Your task to perform on an android device: change the upload size in google photos Image 0: 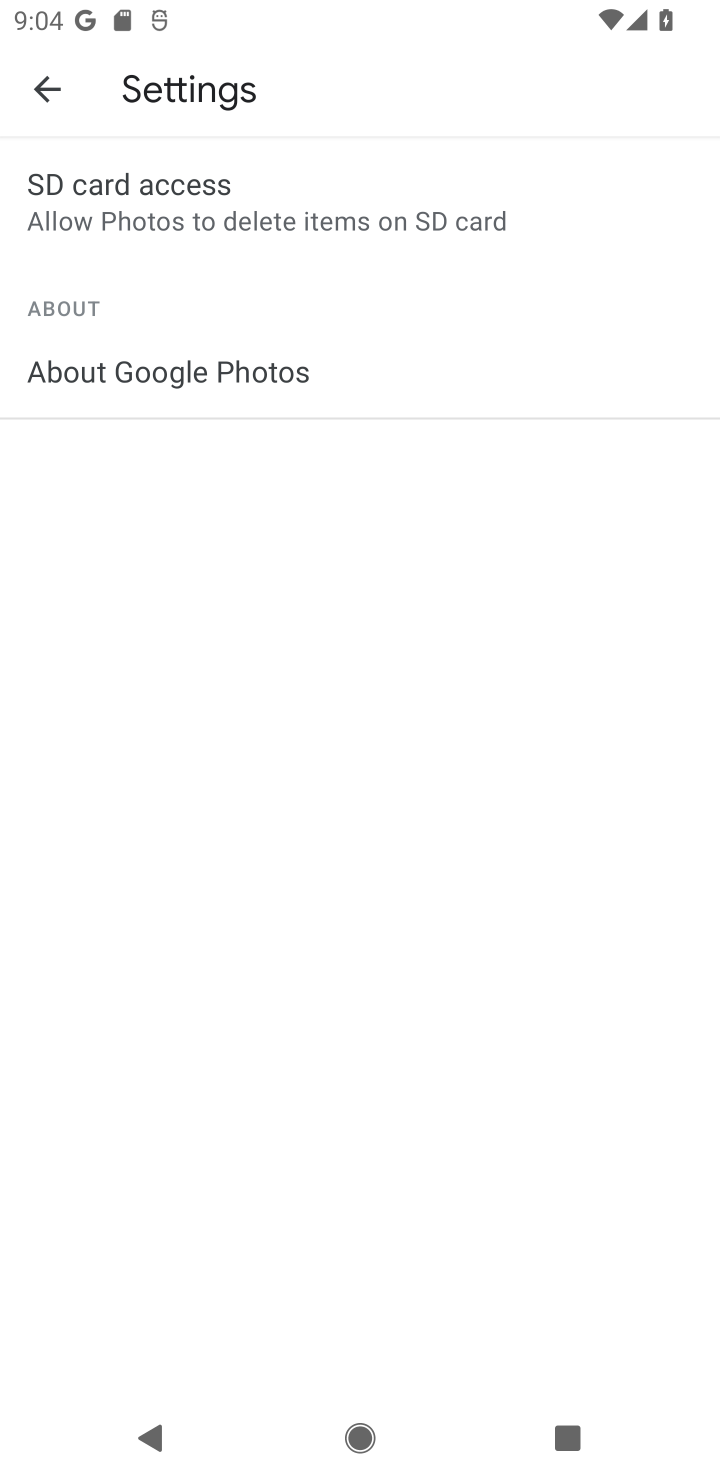
Step 0: press home button
Your task to perform on an android device: change the upload size in google photos Image 1: 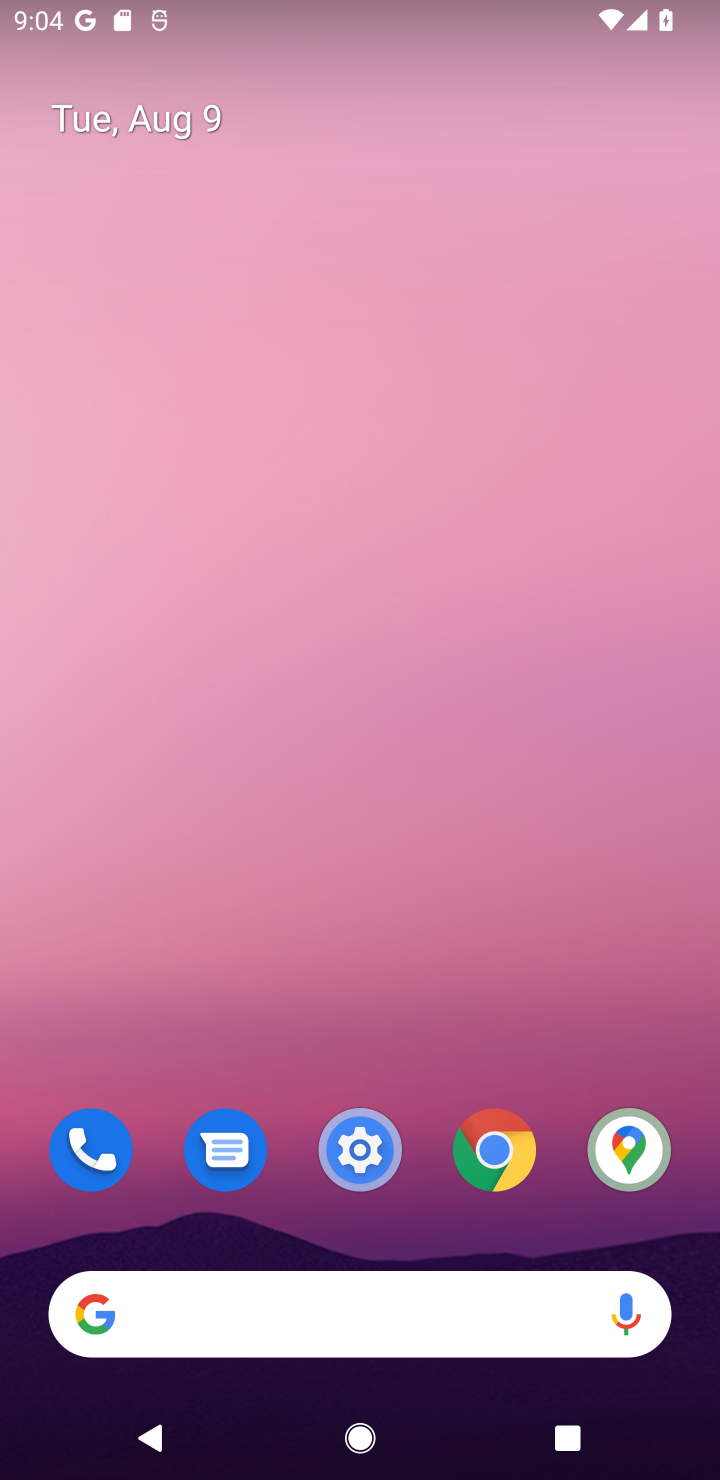
Step 1: drag from (525, 409) to (601, 20)
Your task to perform on an android device: change the upload size in google photos Image 2: 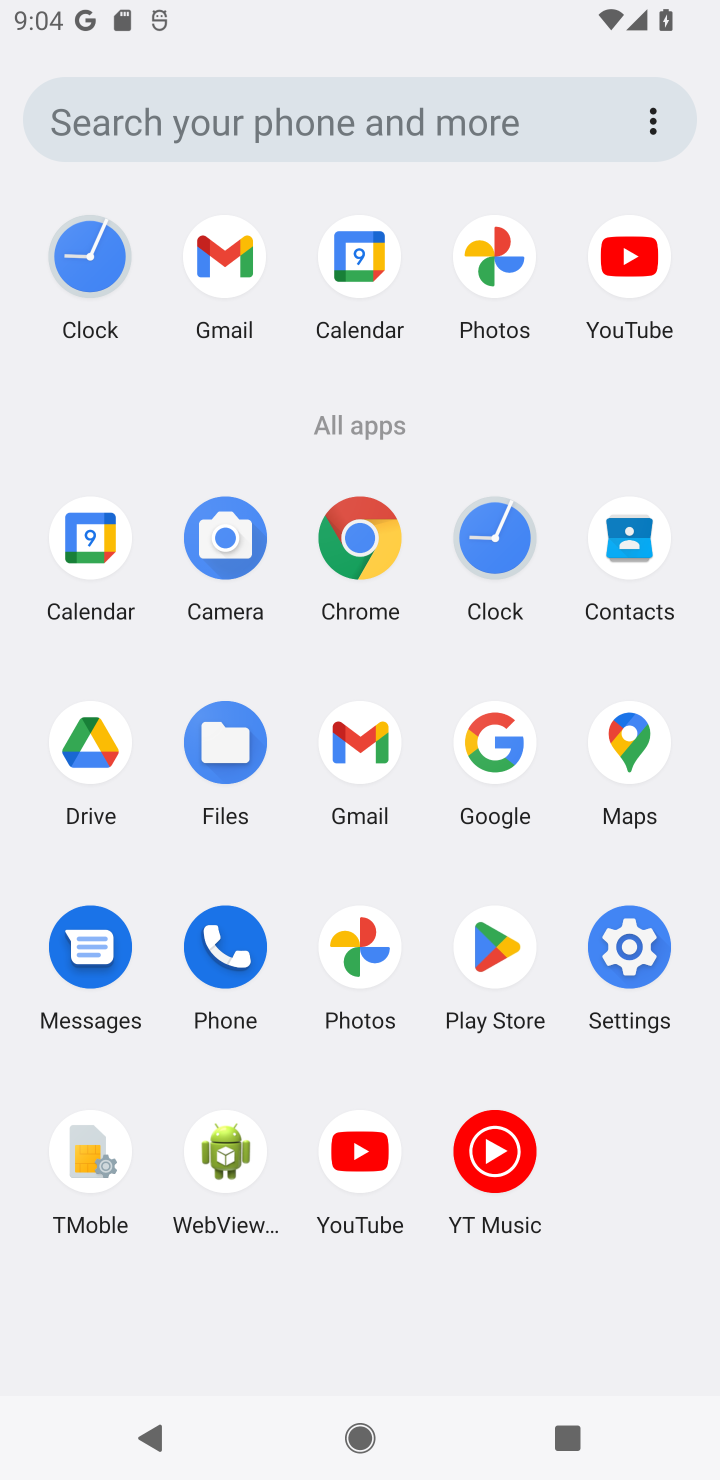
Step 2: click (327, 989)
Your task to perform on an android device: change the upload size in google photos Image 3: 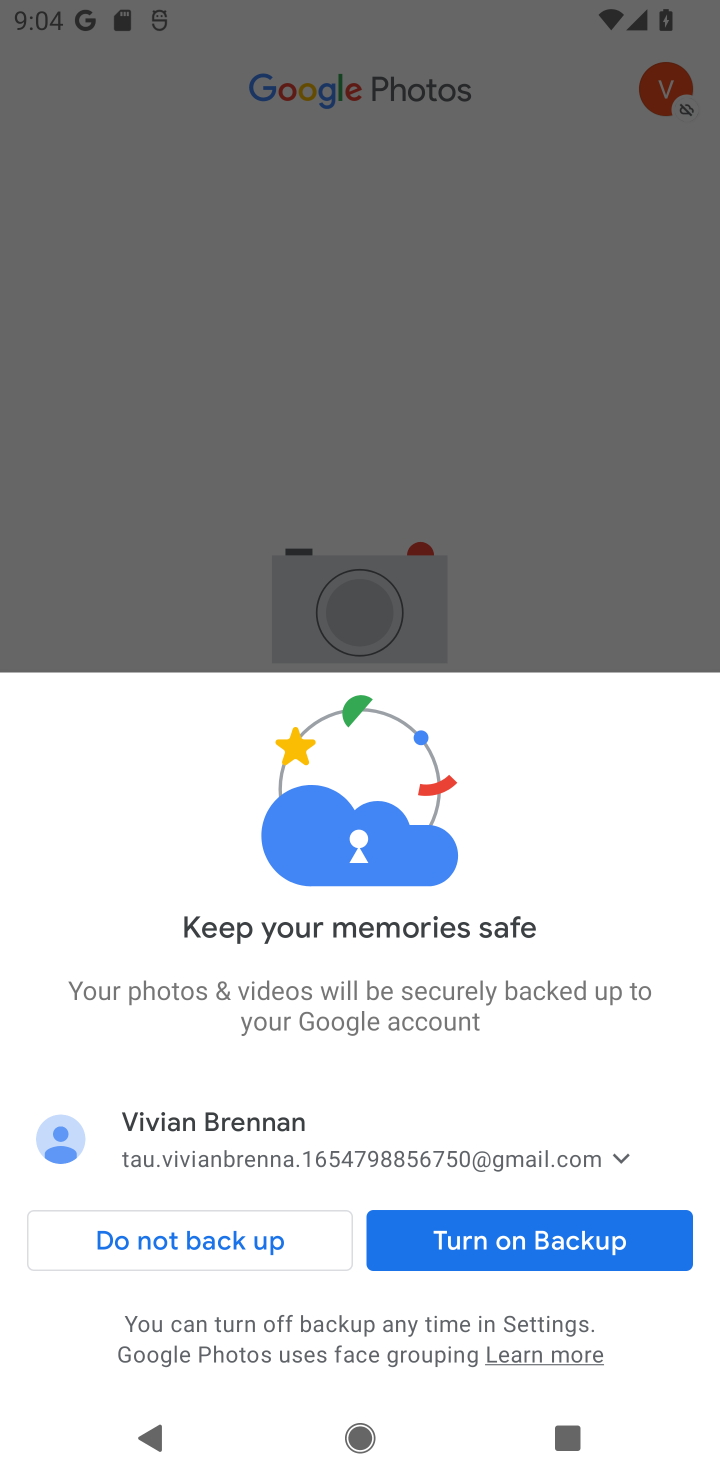
Step 3: click (525, 1244)
Your task to perform on an android device: change the upload size in google photos Image 4: 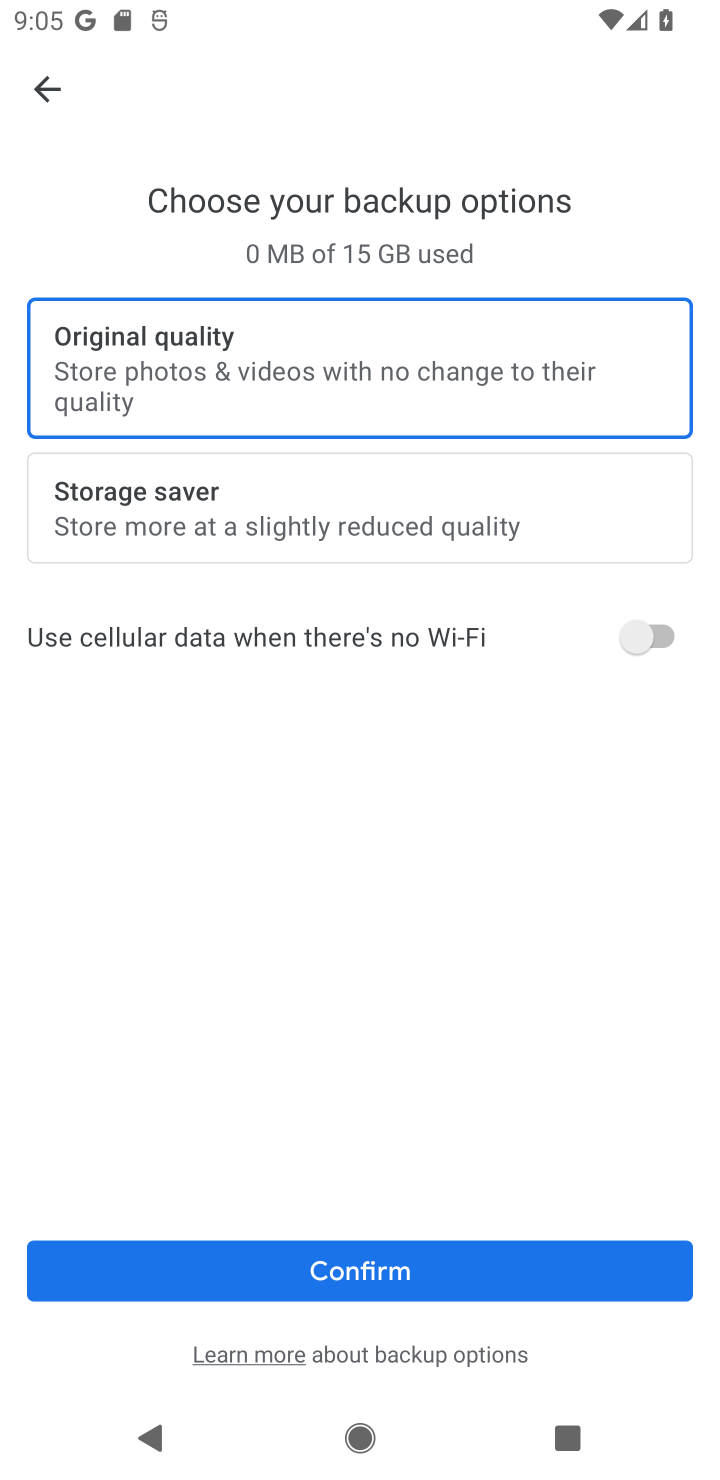
Step 4: click (349, 1262)
Your task to perform on an android device: change the upload size in google photos Image 5: 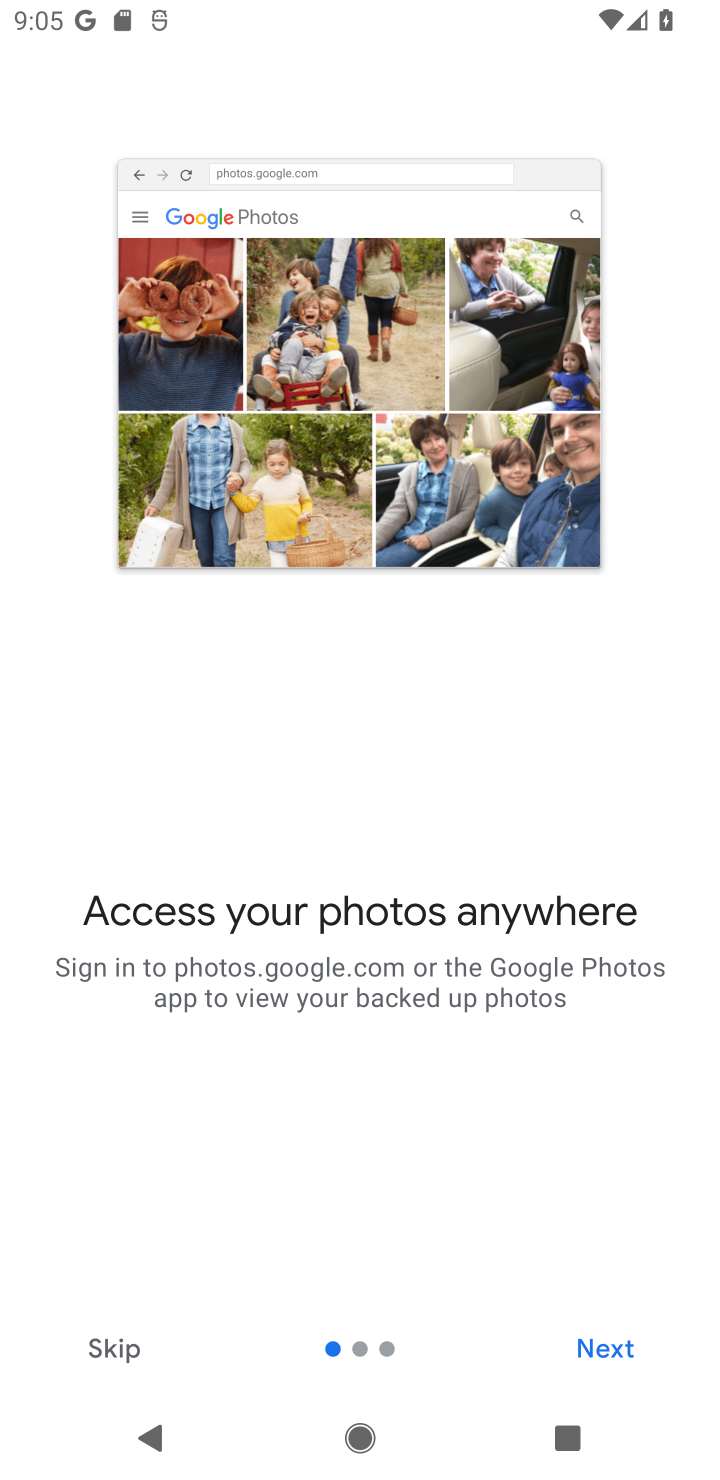
Step 5: click (614, 1350)
Your task to perform on an android device: change the upload size in google photos Image 6: 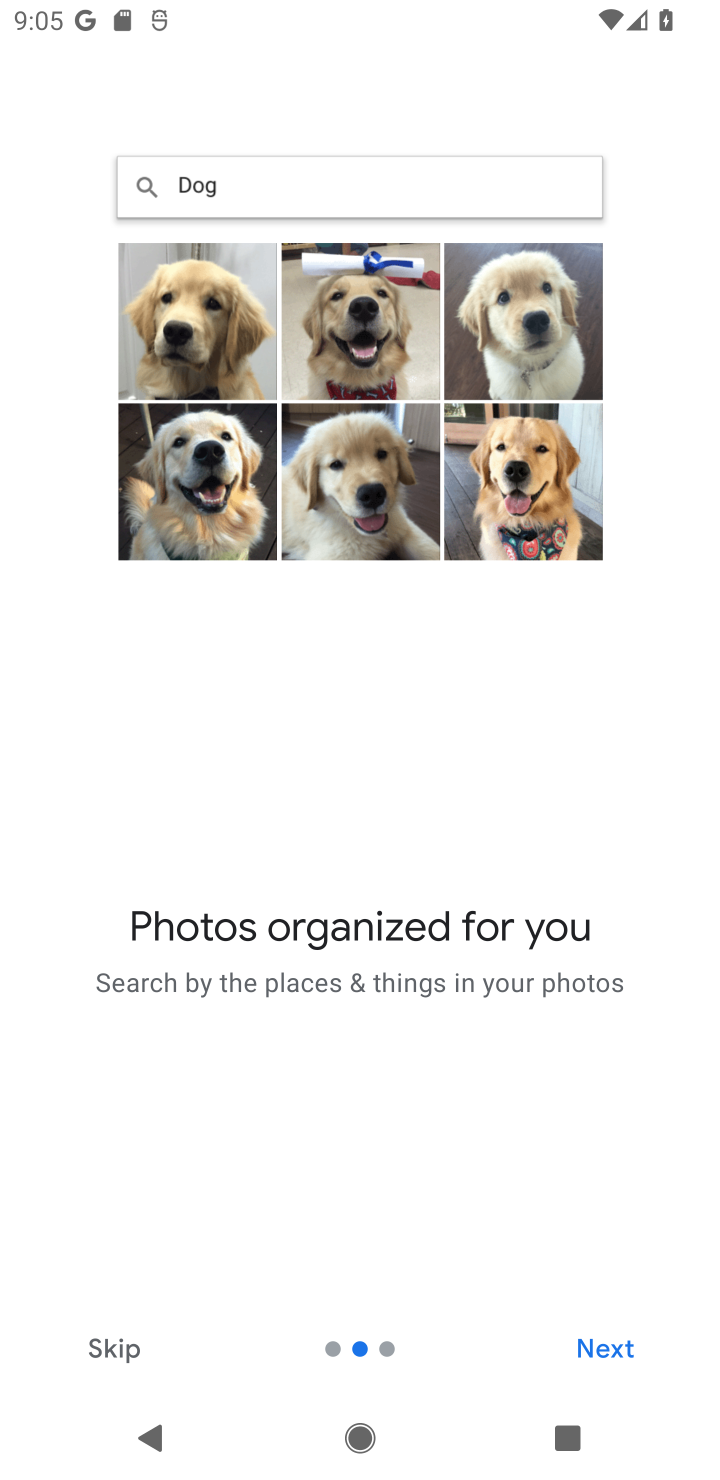
Step 6: click (623, 1352)
Your task to perform on an android device: change the upload size in google photos Image 7: 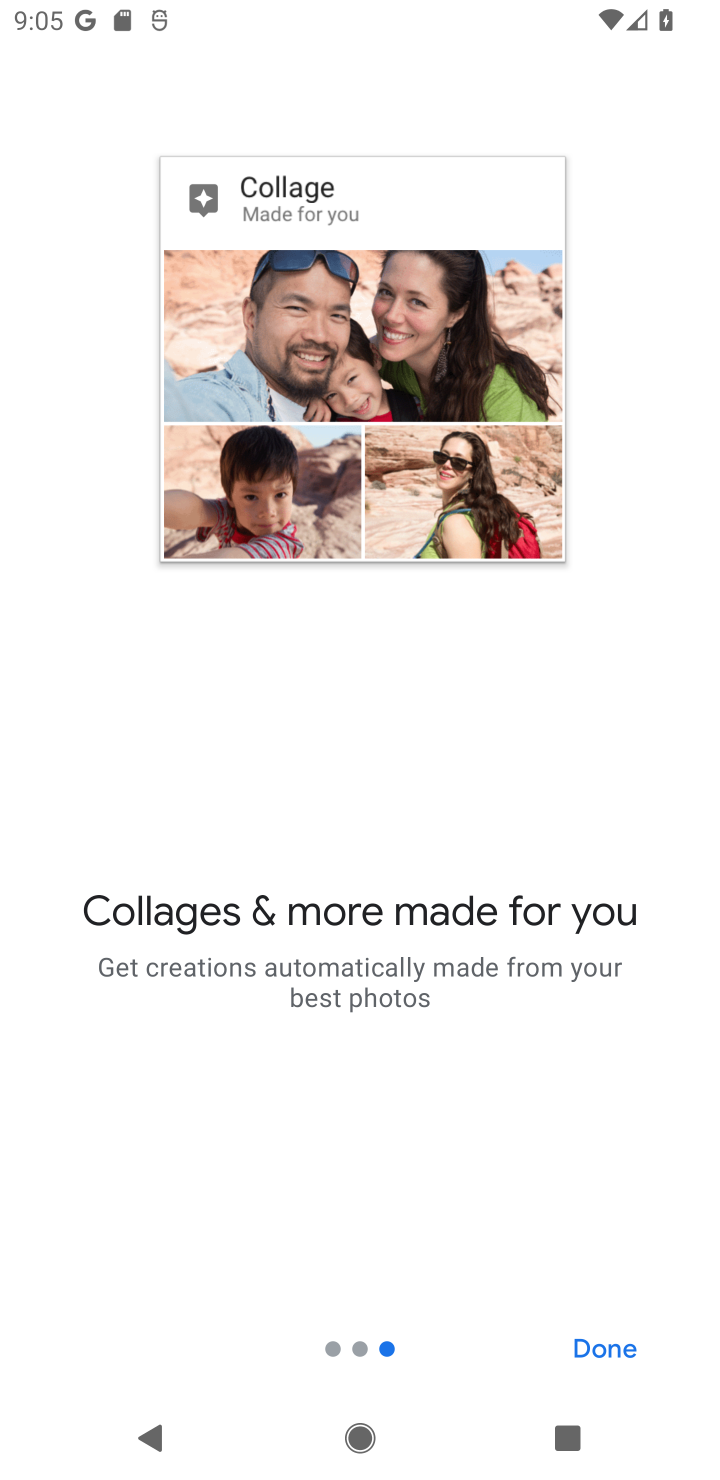
Step 7: click (614, 1347)
Your task to perform on an android device: change the upload size in google photos Image 8: 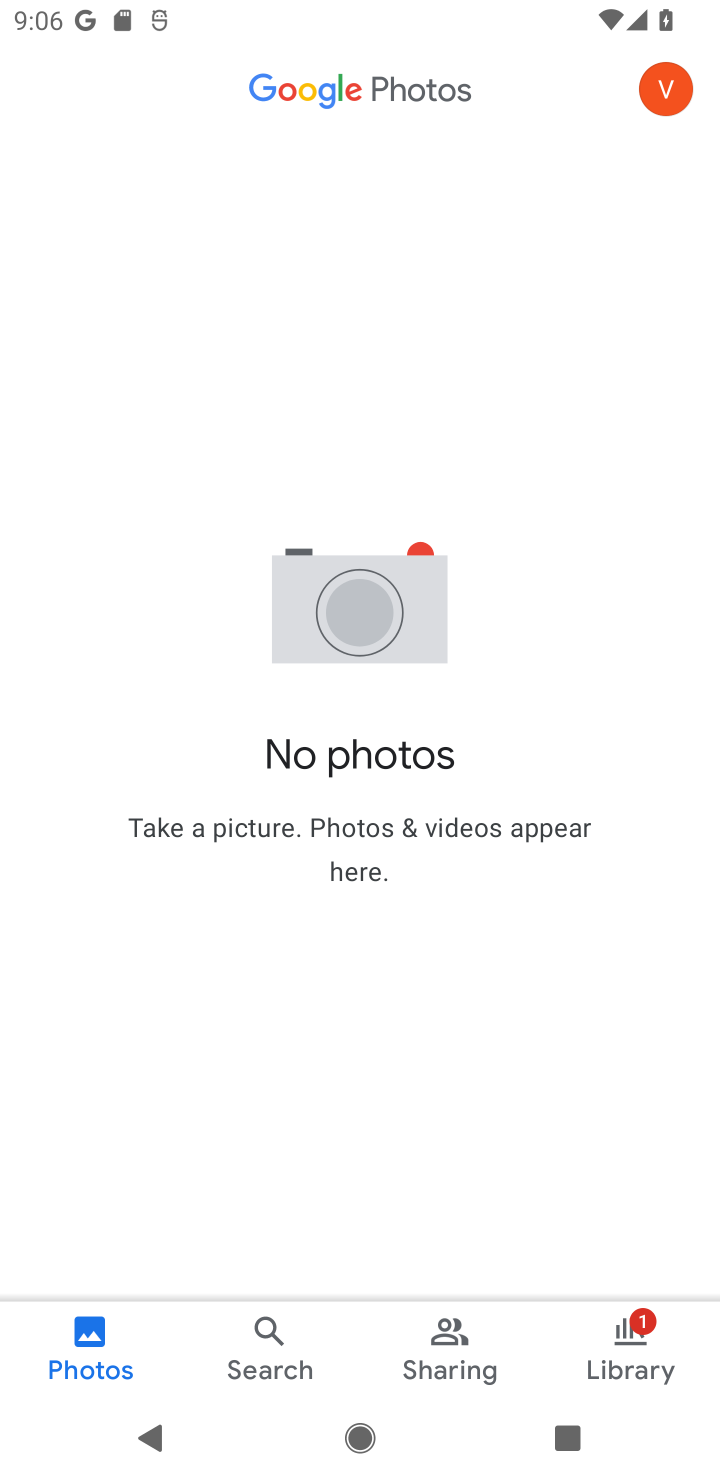
Step 8: click (648, 74)
Your task to perform on an android device: change the upload size in google photos Image 9: 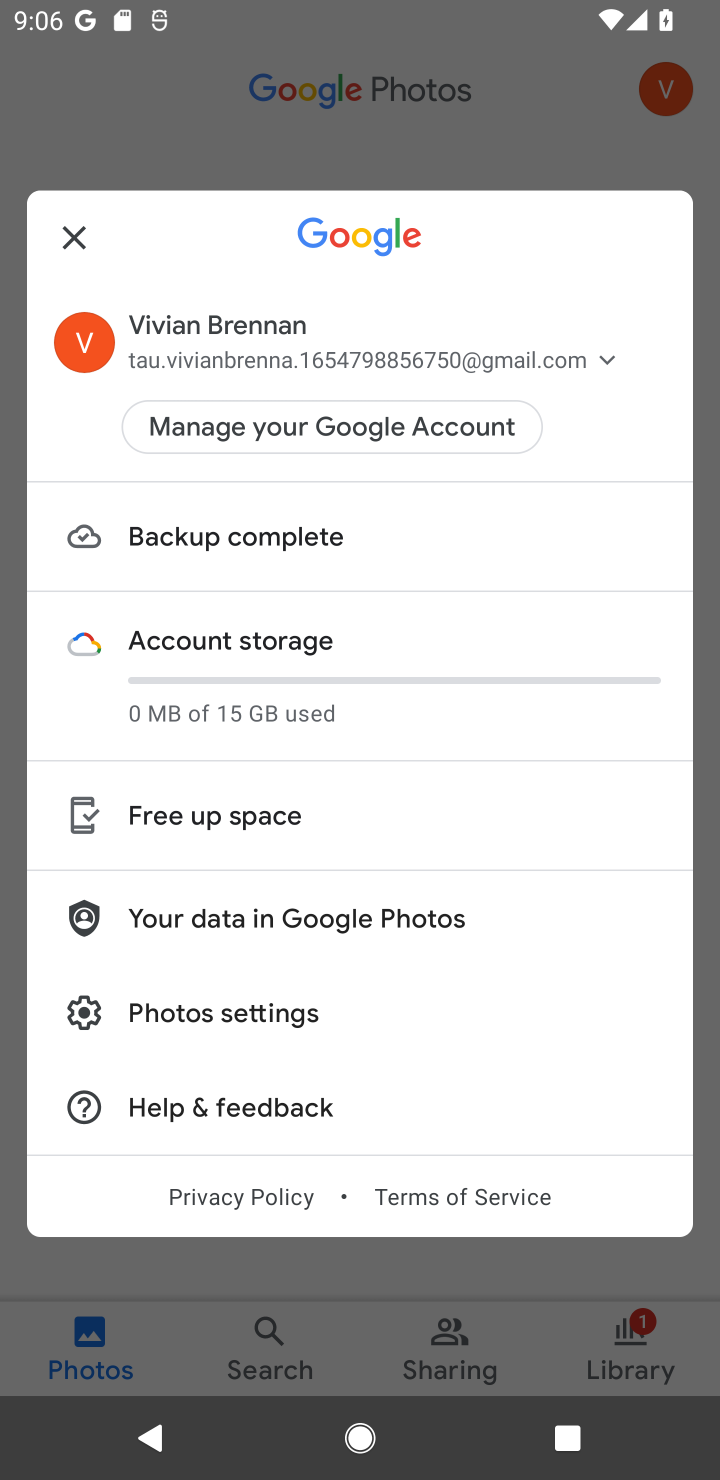
Step 9: click (335, 1027)
Your task to perform on an android device: change the upload size in google photos Image 10: 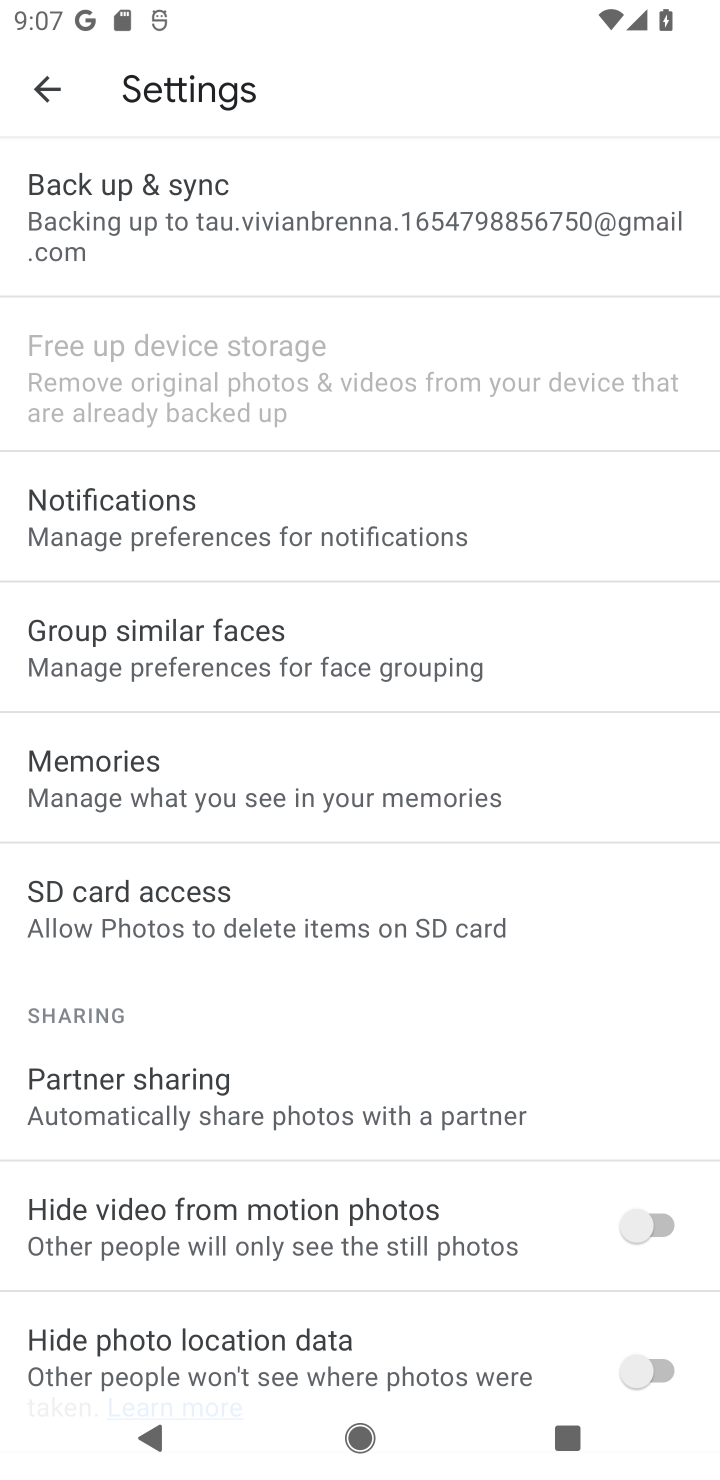
Step 10: click (204, 179)
Your task to perform on an android device: change the upload size in google photos Image 11: 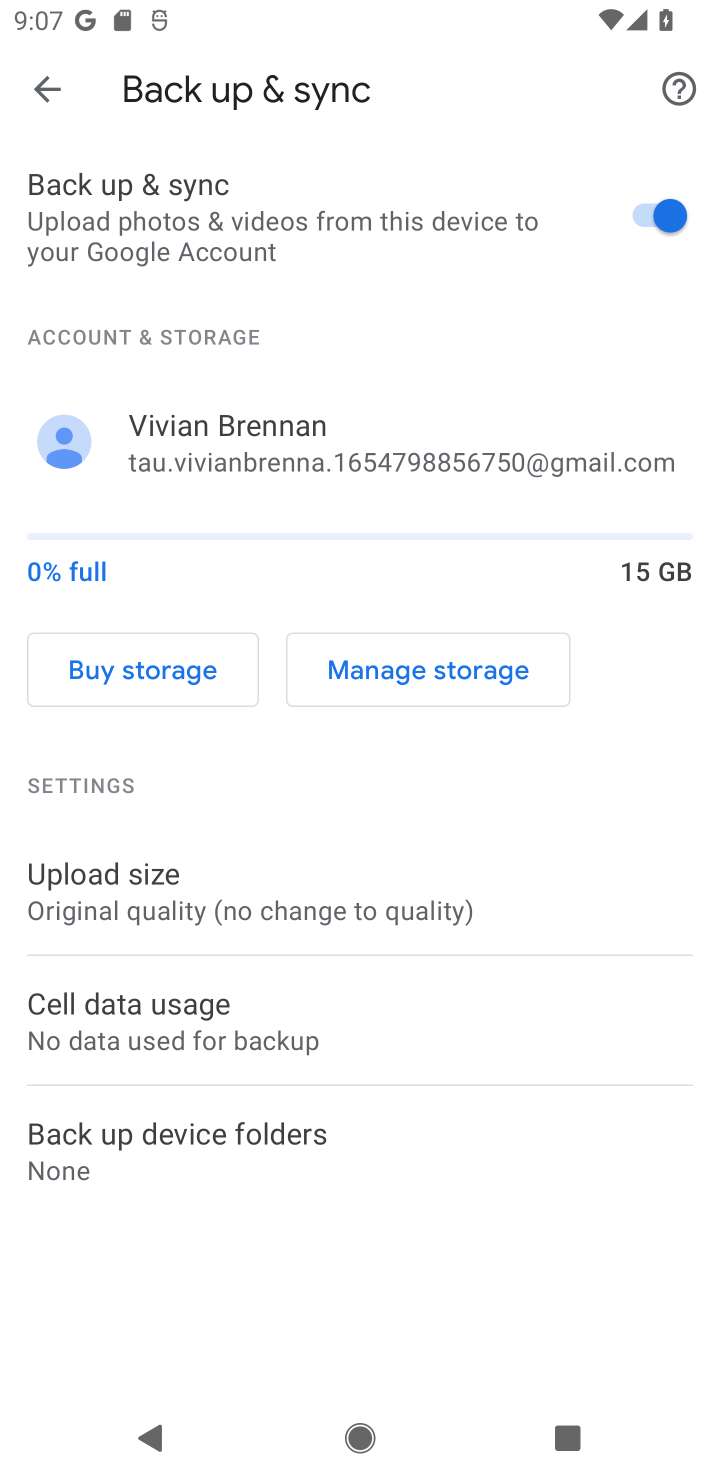
Step 11: click (146, 868)
Your task to perform on an android device: change the upload size in google photos Image 12: 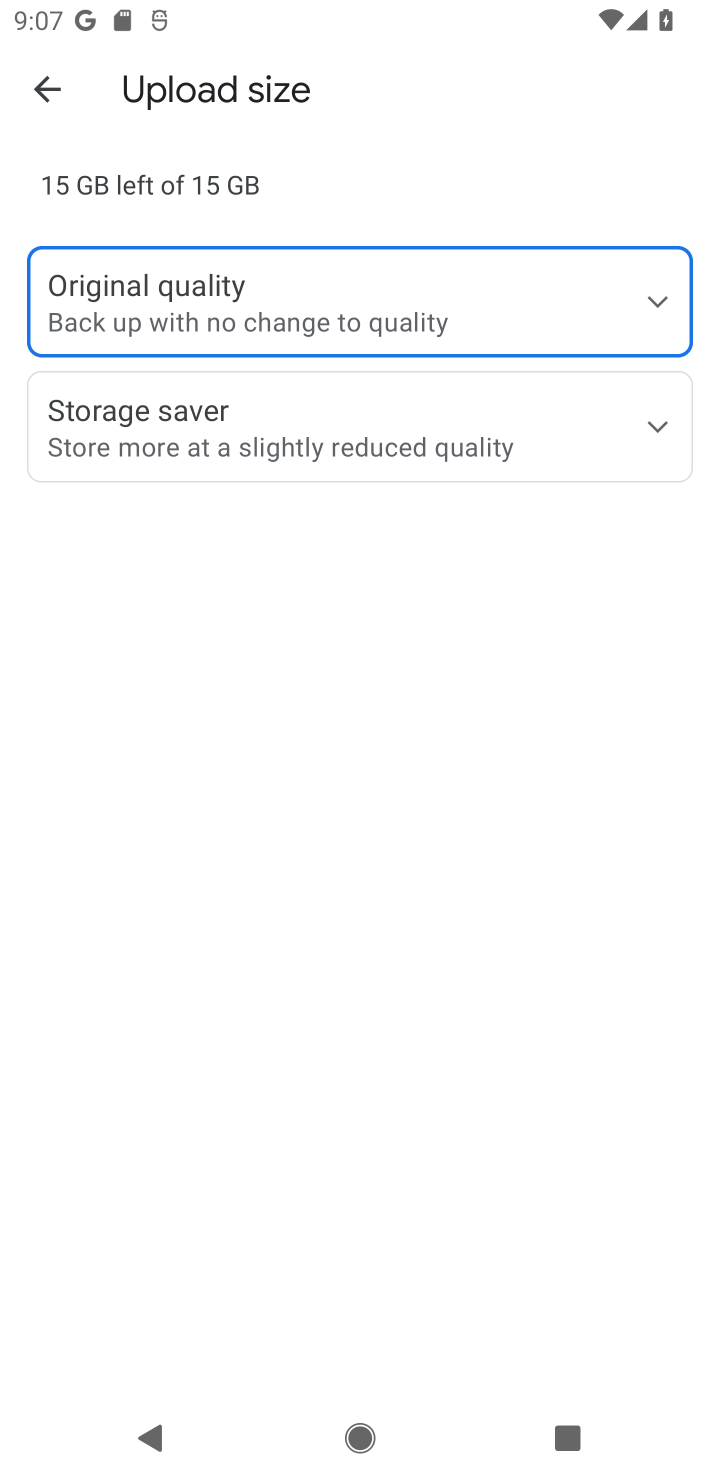
Step 12: click (212, 406)
Your task to perform on an android device: change the upload size in google photos Image 13: 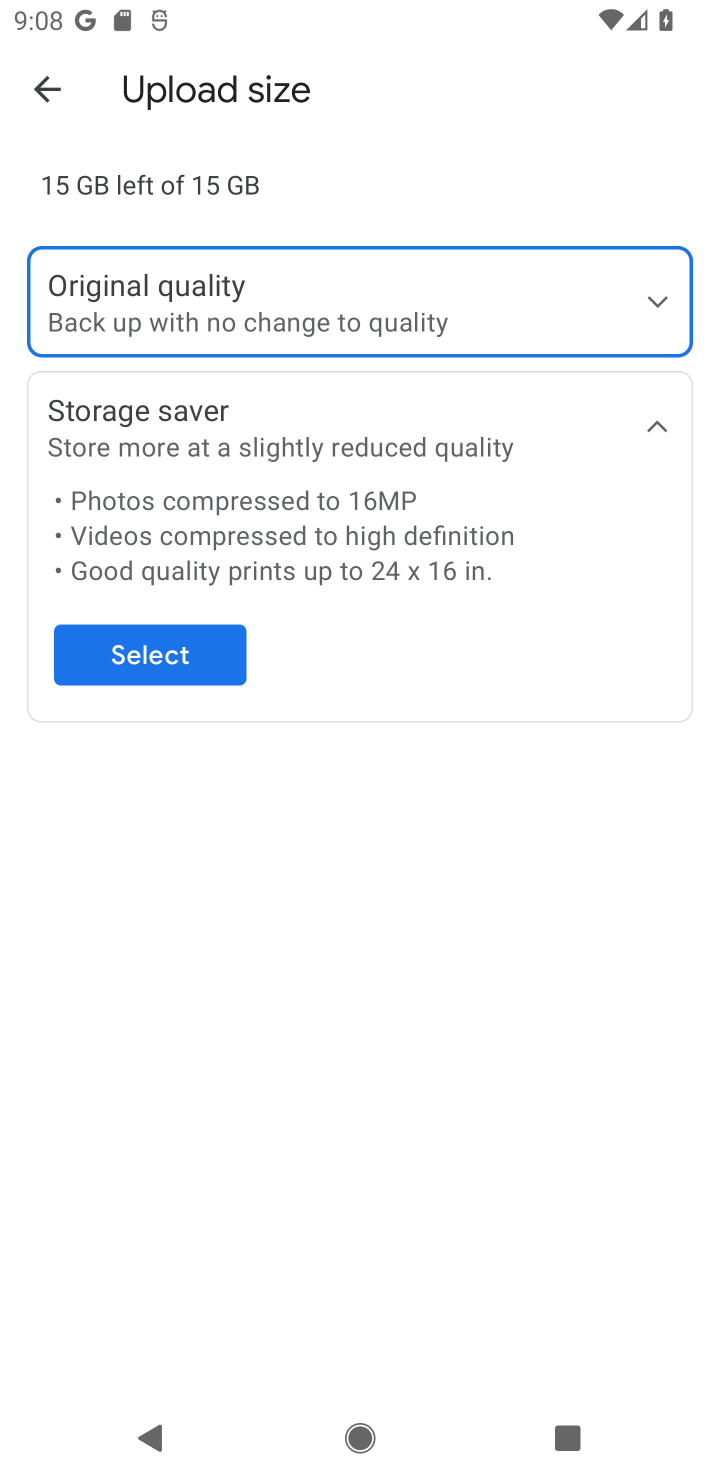
Step 13: click (152, 519)
Your task to perform on an android device: change the upload size in google photos Image 14: 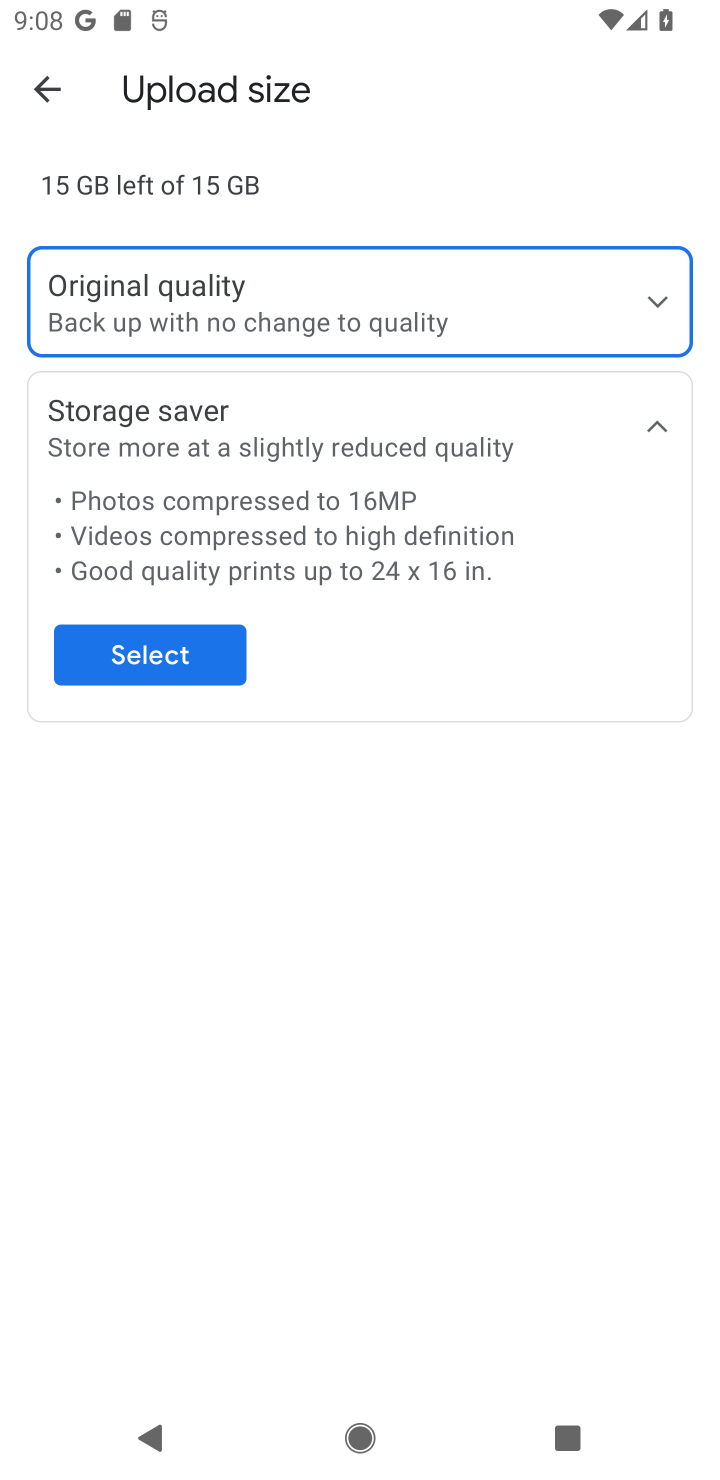
Step 14: click (152, 519)
Your task to perform on an android device: change the upload size in google photos Image 15: 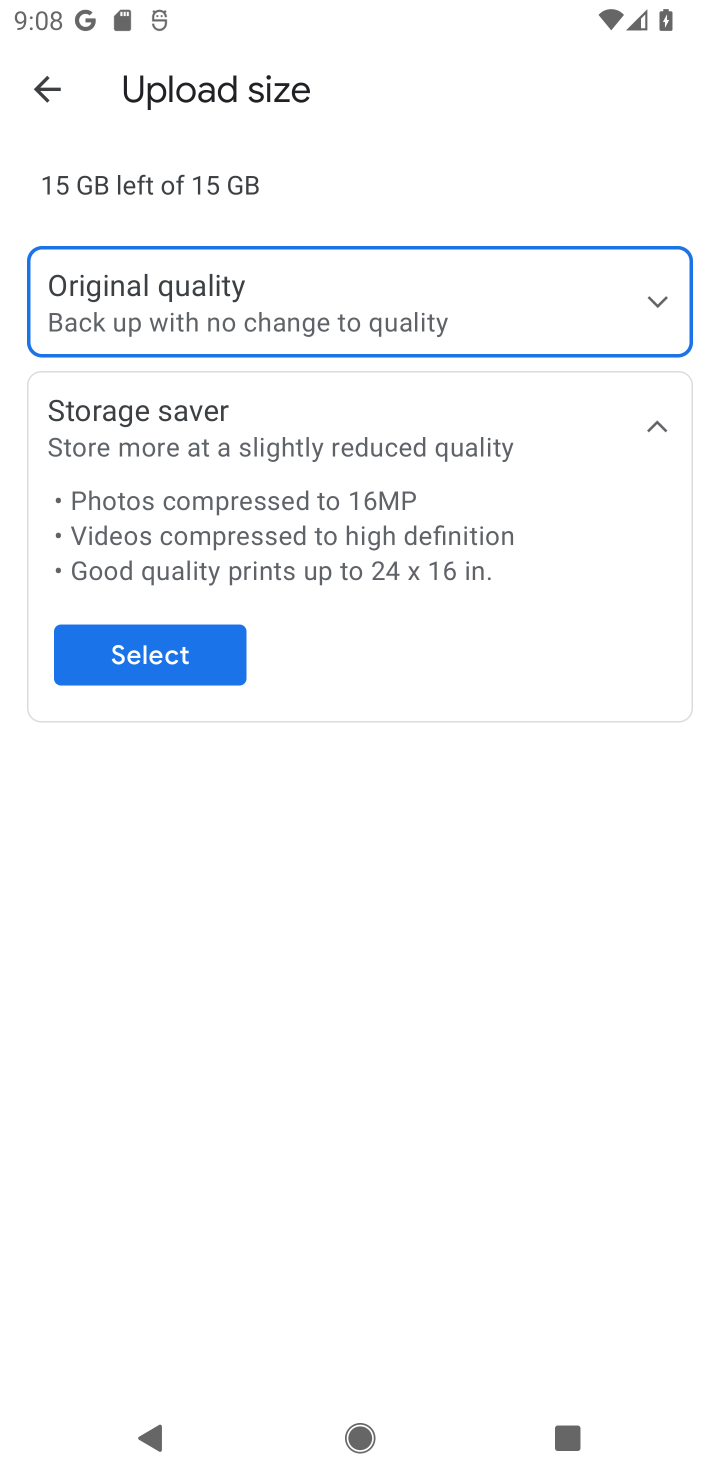
Step 15: click (126, 650)
Your task to perform on an android device: change the upload size in google photos Image 16: 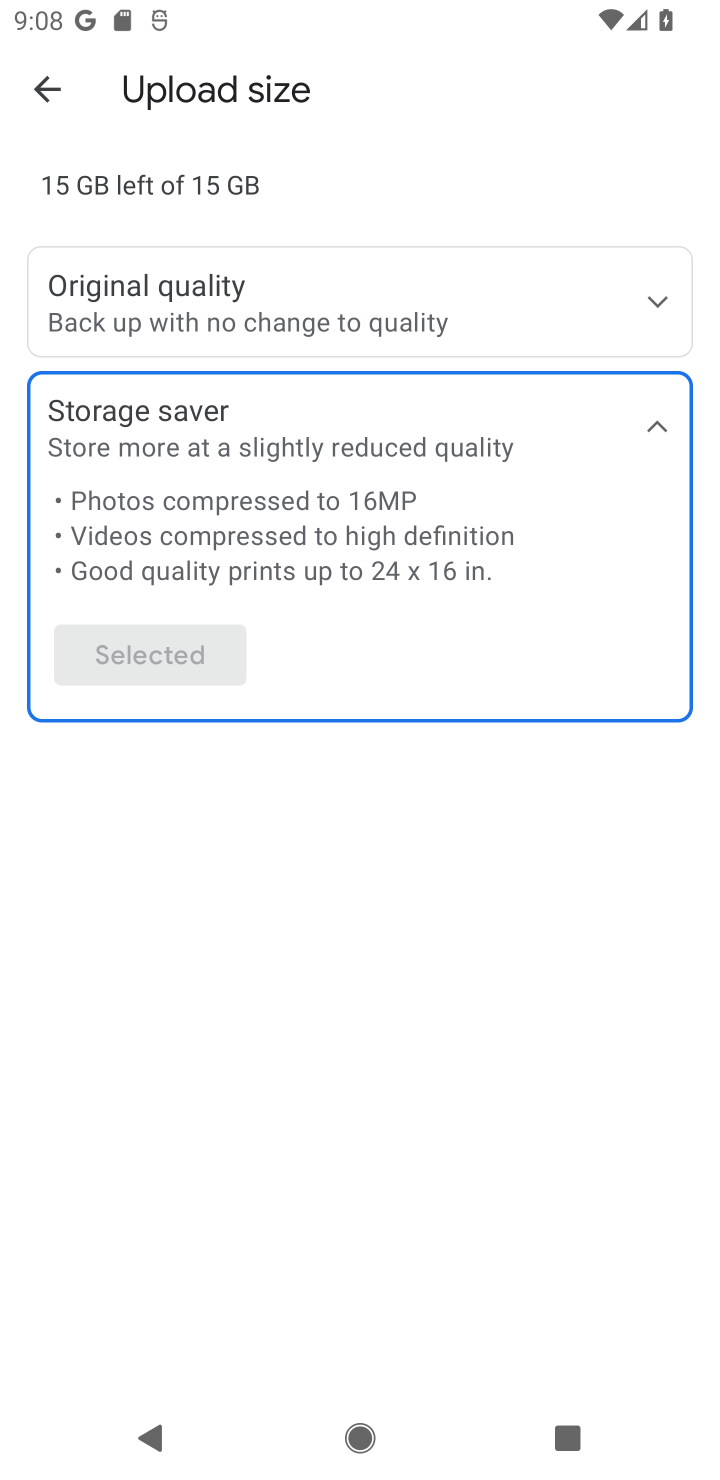
Step 16: task complete